Your task to perform on an android device: turn off location Image 0: 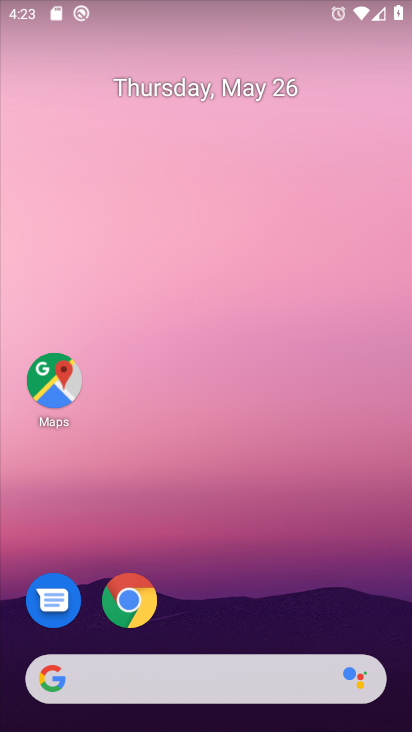
Step 0: drag from (260, 624) to (306, 86)
Your task to perform on an android device: turn off location Image 1: 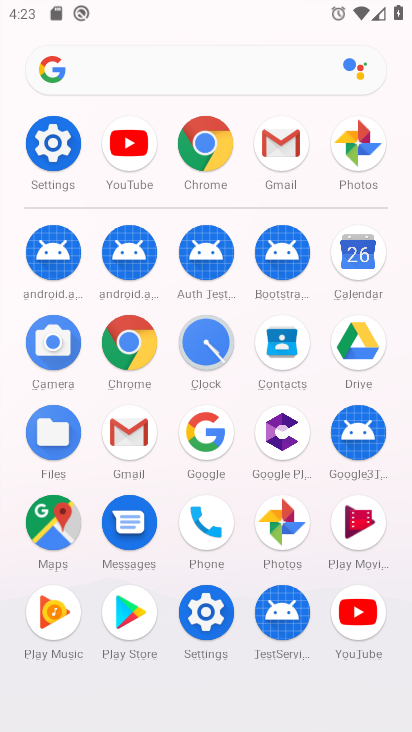
Step 1: click (47, 159)
Your task to perform on an android device: turn off location Image 2: 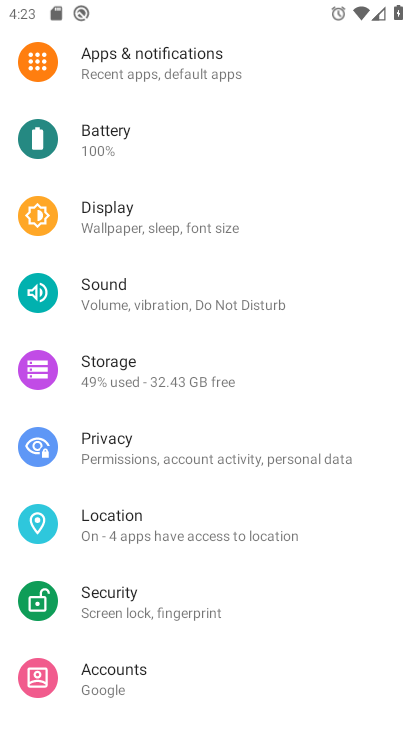
Step 2: click (154, 521)
Your task to perform on an android device: turn off location Image 3: 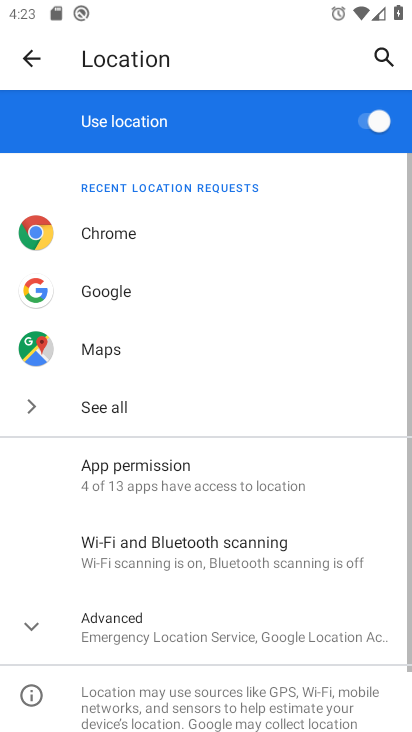
Step 3: click (346, 119)
Your task to perform on an android device: turn off location Image 4: 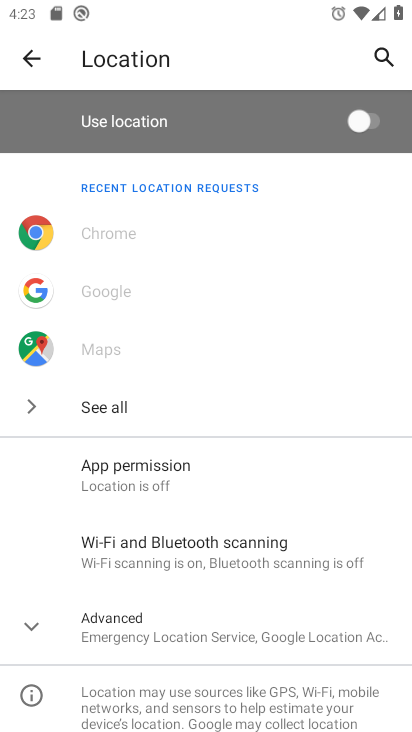
Step 4: task complete